Your task to perform on an android device: open chrome and create a bookmark for the current page Image 0: 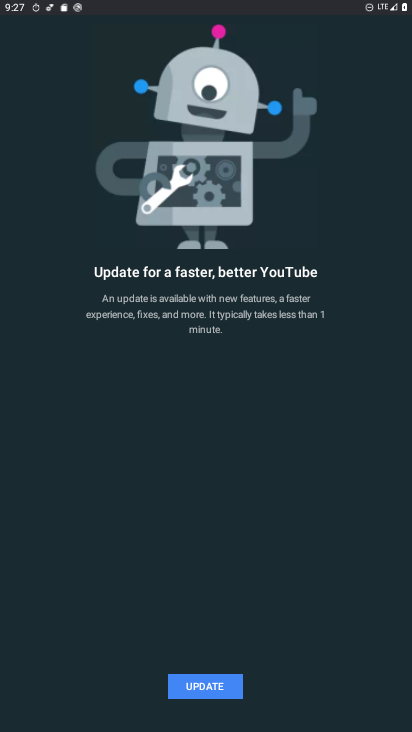
Step 0: press home button
Your task to perform on an android device: open chrome and create a bookmark for the current page Image 1: 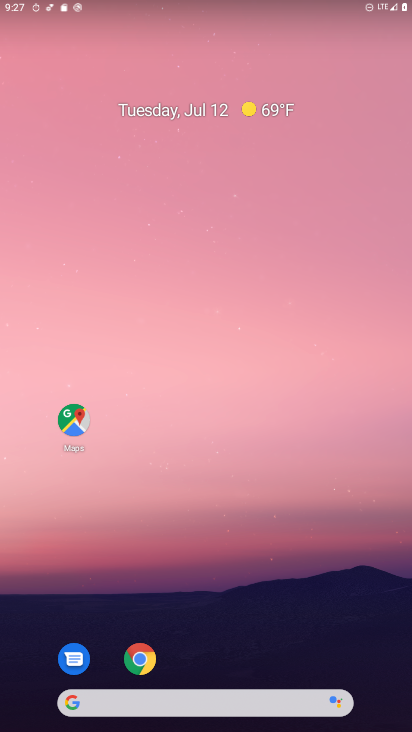
Step 1: click (135, 666)
Your task to perform on an android device: open chrome and create a bookmark for the current page Image 2: 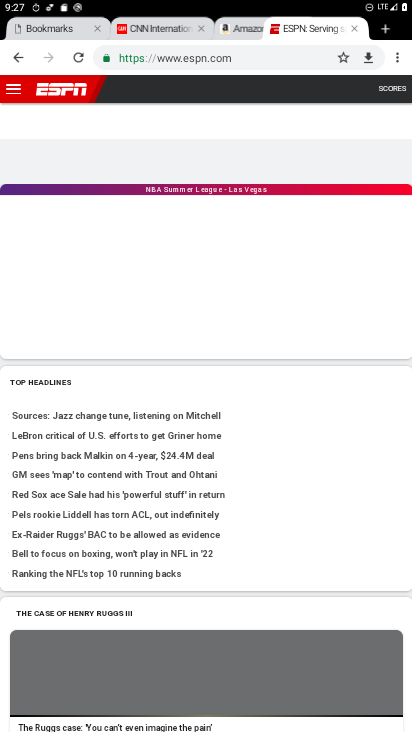
Step 2: click (341, 54)
Your task to perform on an android device: open chrome and create a bookmark for the current page Image 3: 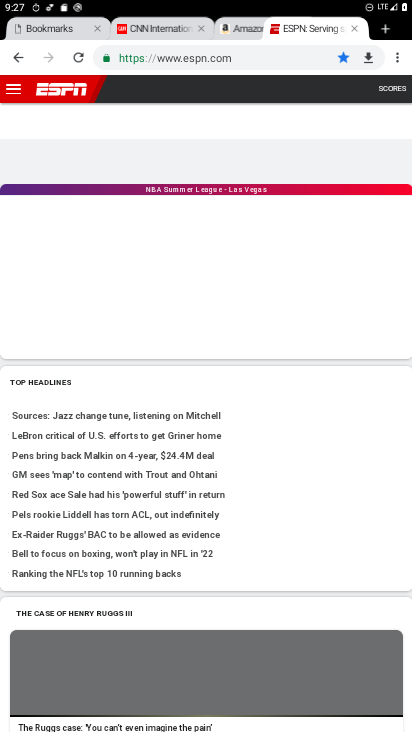
Step 3: task complete